Your task to perform on an android device: Open sound settings Image 0: 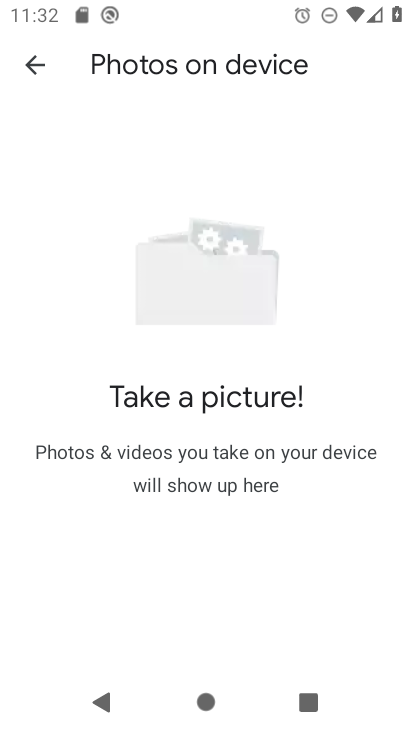
Step 0: press home button
Your task to perform on an android device: Open sound settings Image 1: 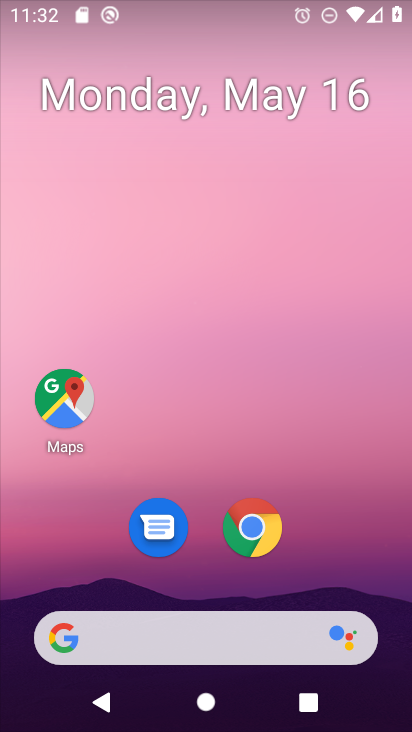
Step 1: drag from (360, 592) to (395, 2)
Your task to perform on an android device: Open sound settings Image 2: 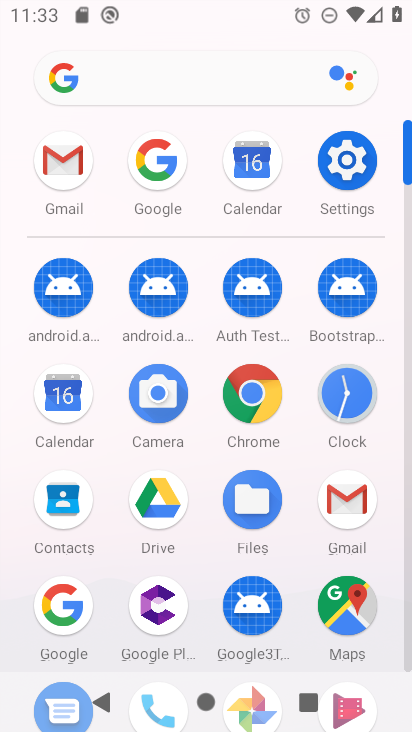
Step 2: click (354, 178)
Your task to perform on an android device: Open sound settings Image 3: 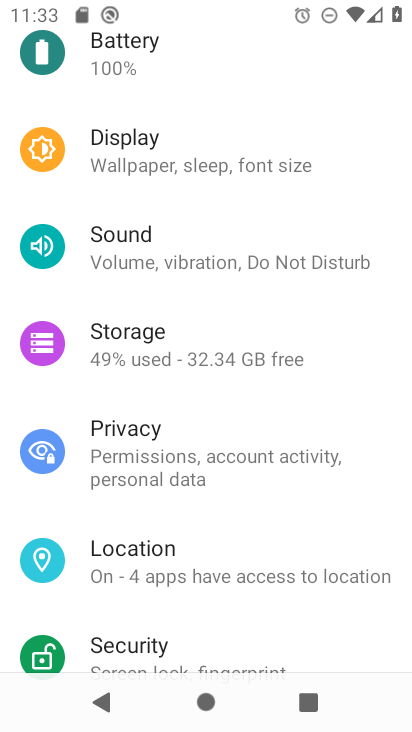
Step 3: click (144, 255)
Your task to perform on an android device: Open sound settings Image 4: 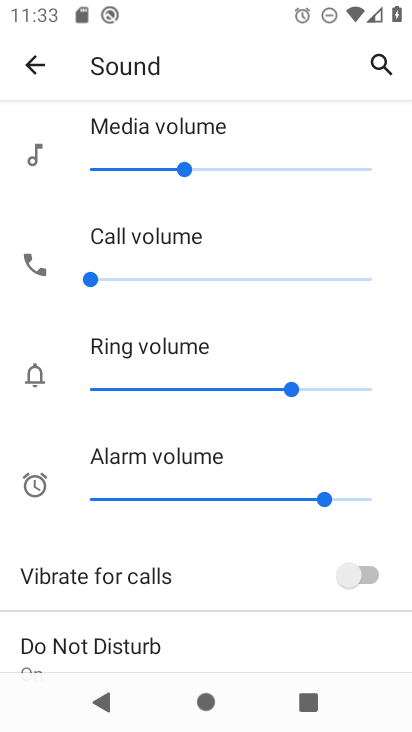
Step 4: task complete